Your task to perform on an android device: Add "acer nitro" to the cart on walmart.com Image 0: 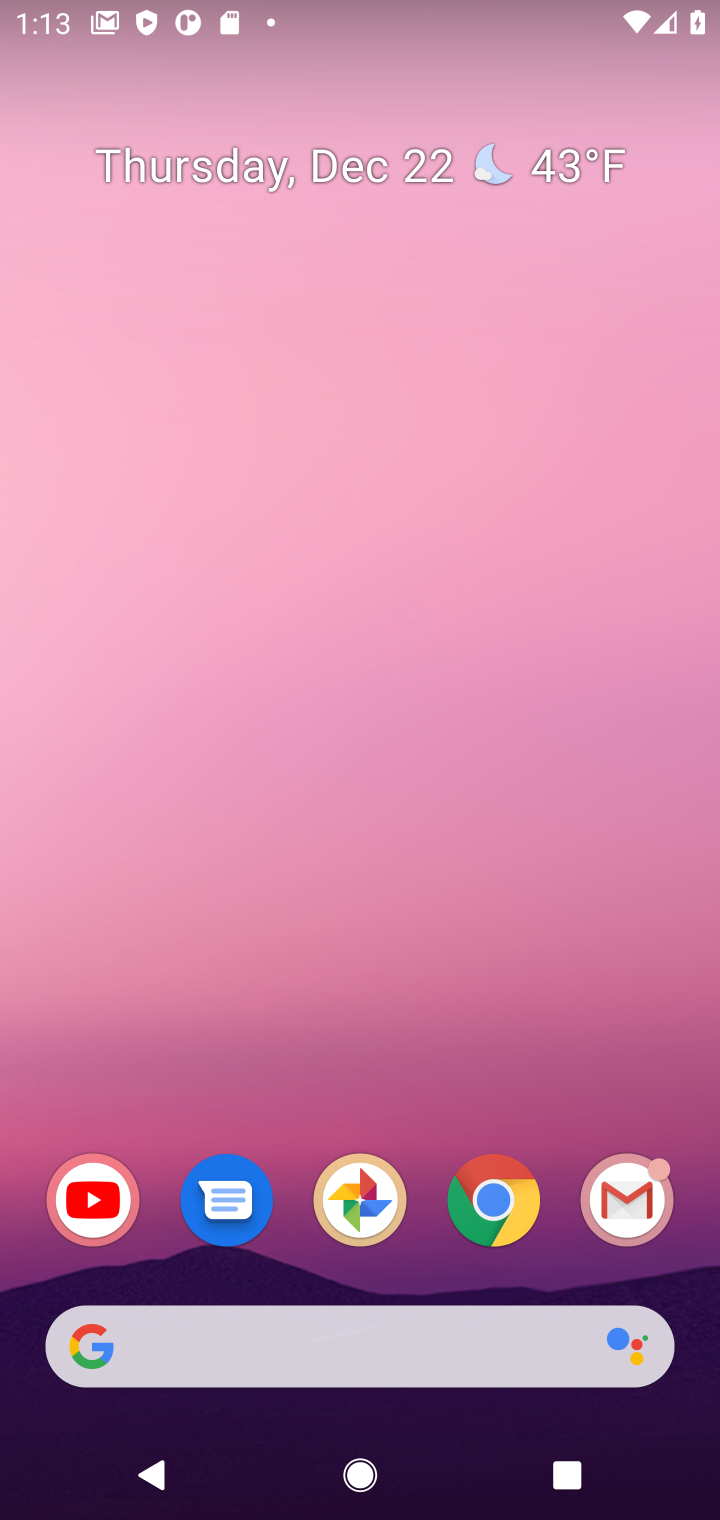
Step 0: click (495, 1208)
Your task to perform on an android device: Add "acer nitro" to the cart on walmart.com Image 1: 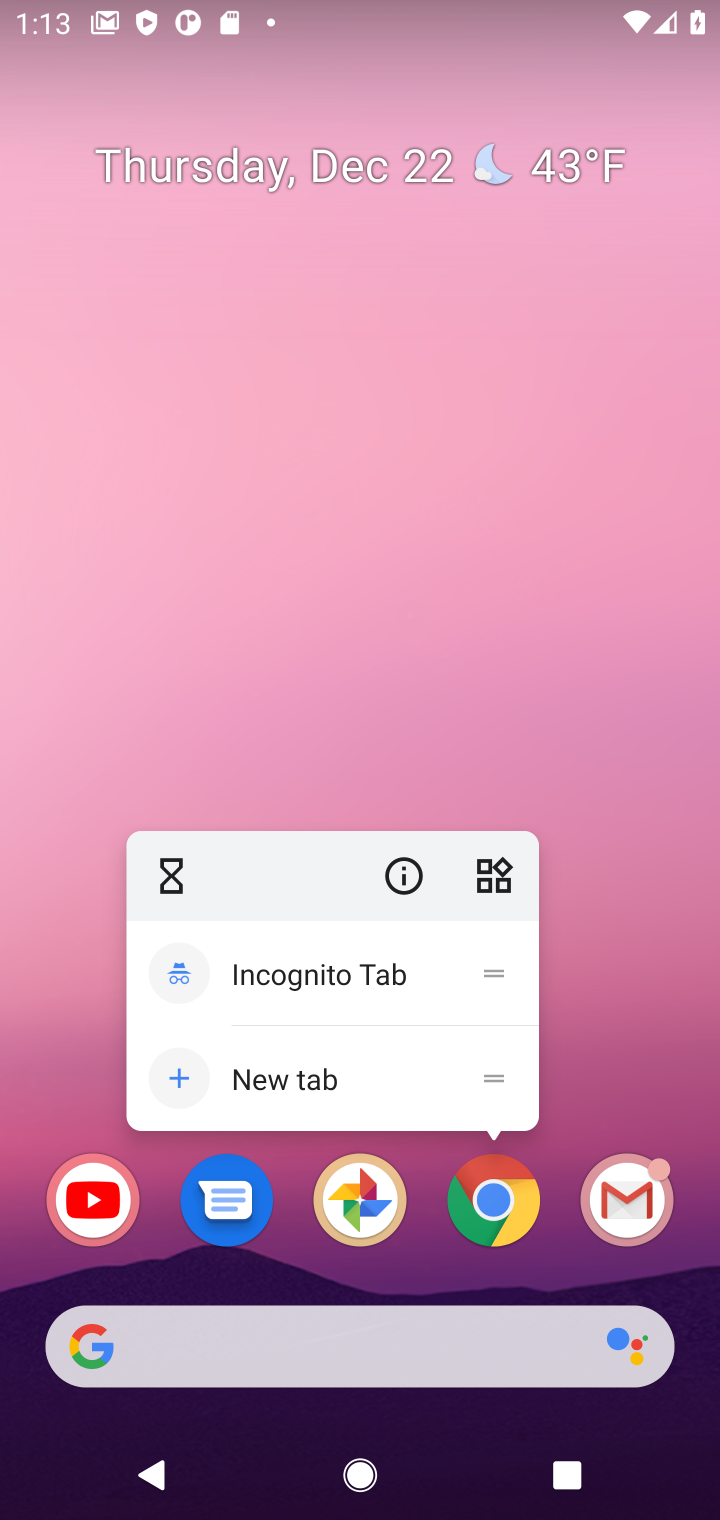
Step 1: click (495, 1208)
Your task to perform on an android device: Add "acer nitro" to the cart on walmart.com Image 2: 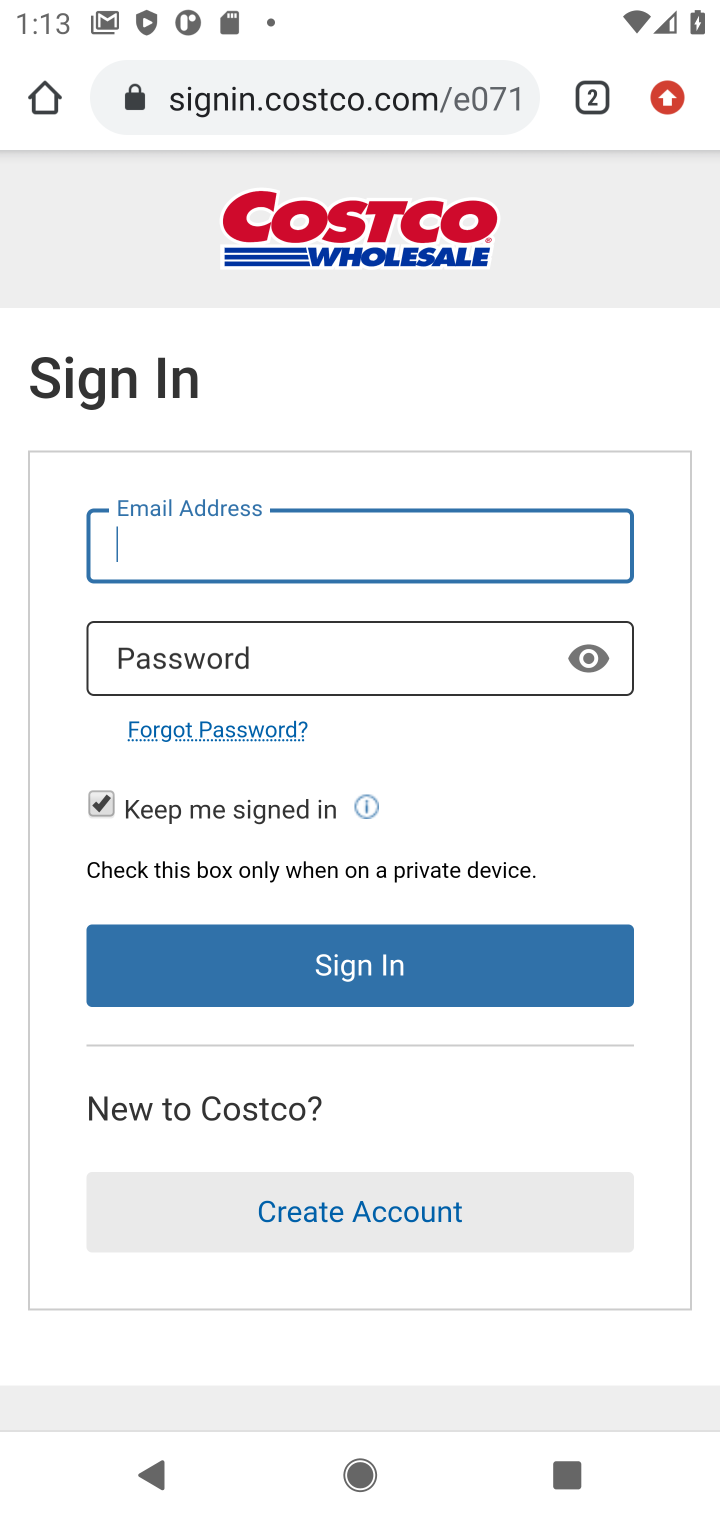
Step 2: click (289, 103)
Your task to perform on an android device: Add "acer nitro" to the cart on walmart.com Image 3: 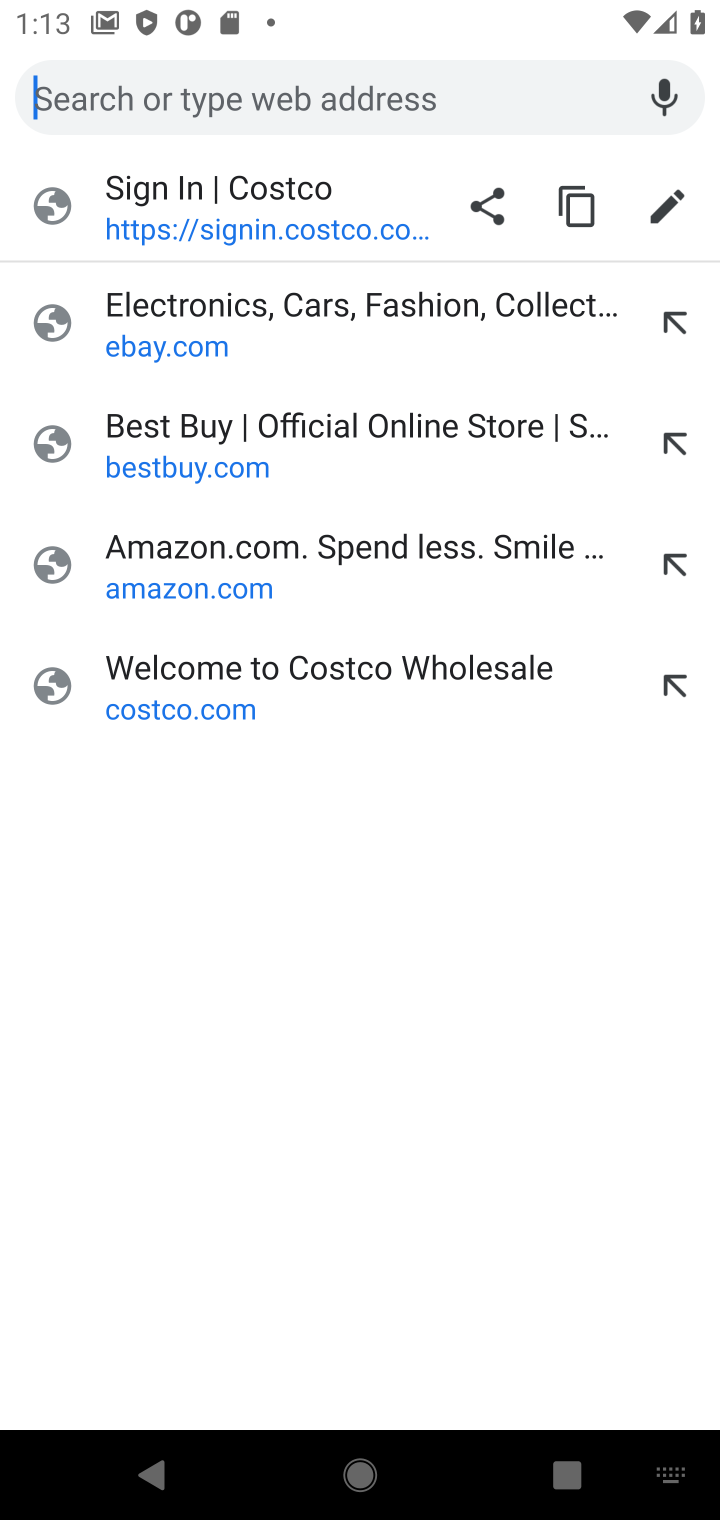
Step 3: type "walmart.com"
Your task to perform on an android device: Add "acer nitro" to the cart on walmart.com Image 4: 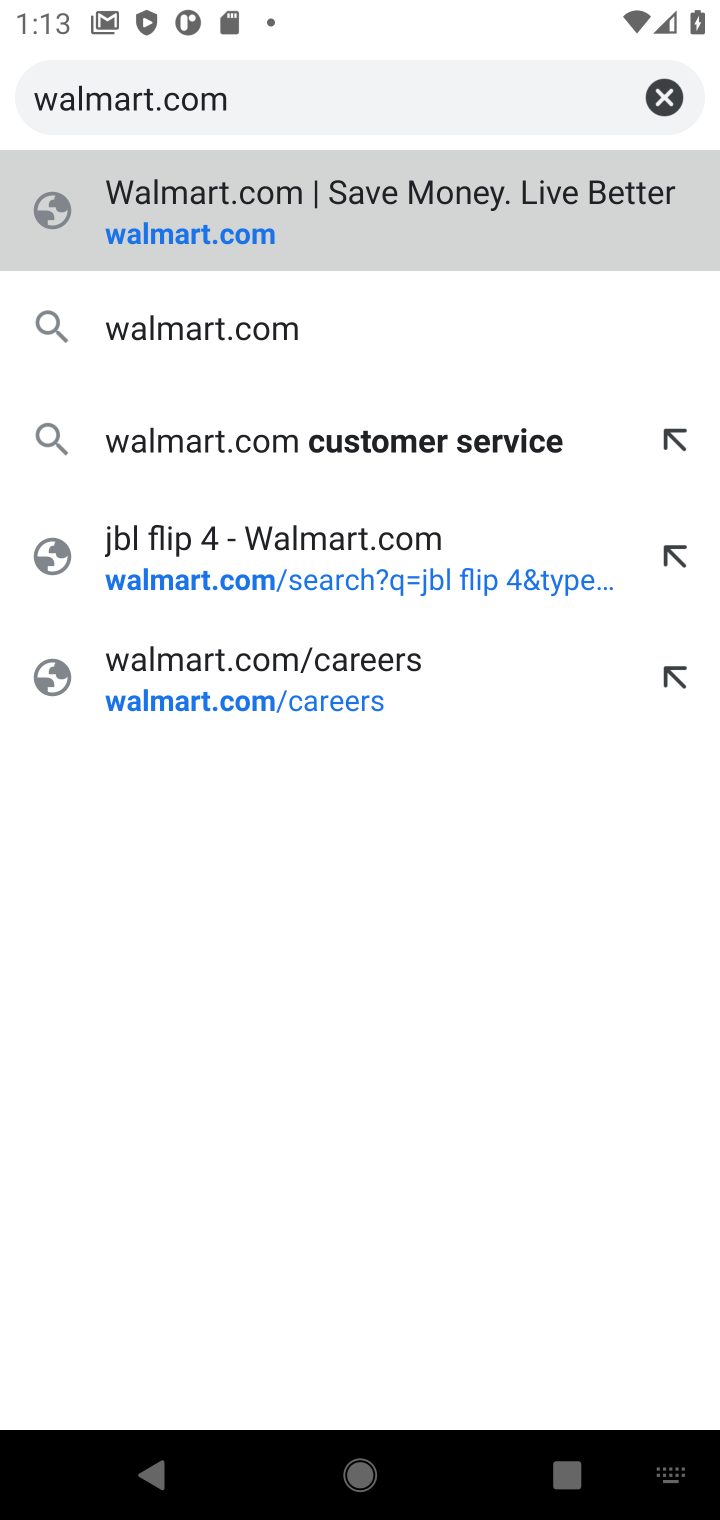
Step 4: click (204, 242)
Your task to perform on an android device: Add "acer nitro" to the cart on walmart.com Image 5: 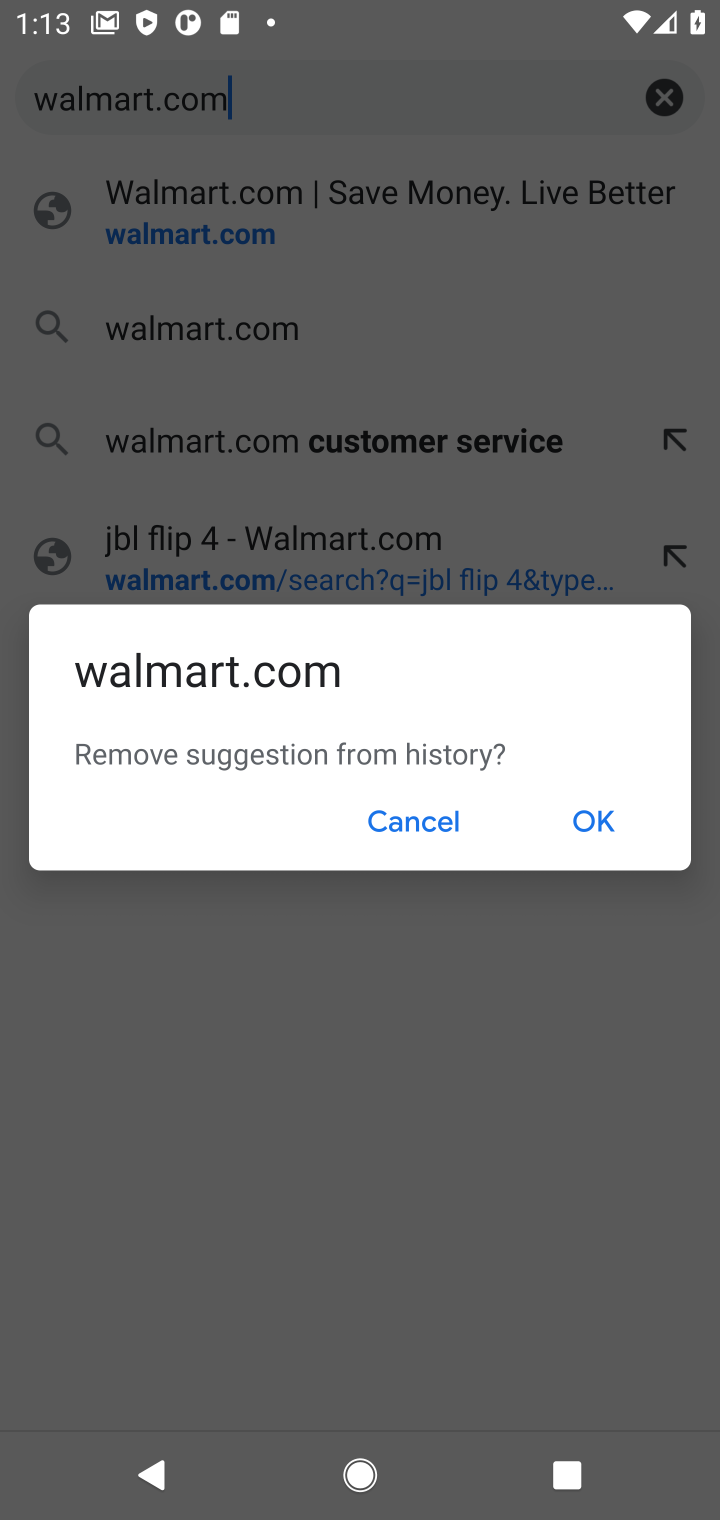
Step 5: click (406, 806)
Your task to perform on an android device: Add "acer nitro" to the cart on walmart.com Image 6: 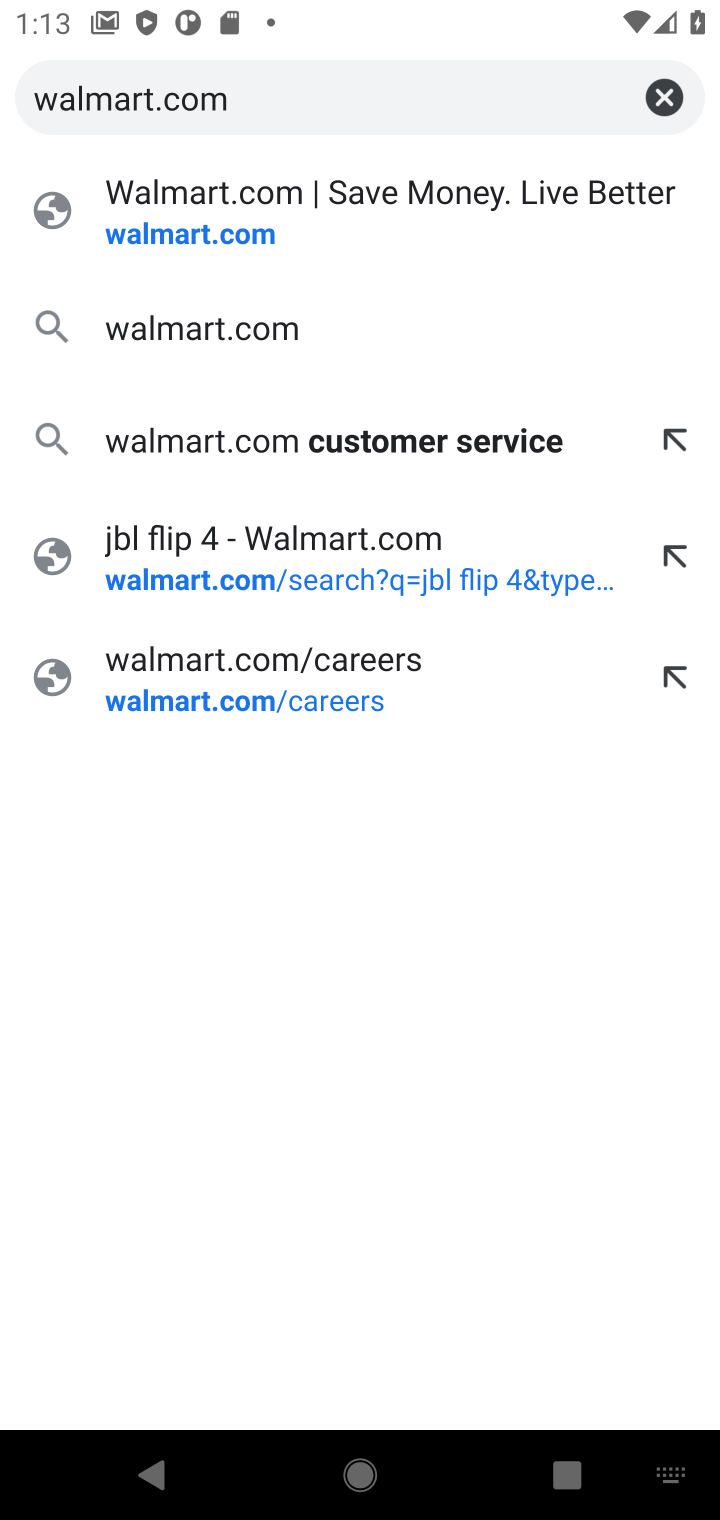
Step 6: click (176, 245)
Your task to perform on an android device: Add "acer nitro" to the cart on walmart.com Image 7: 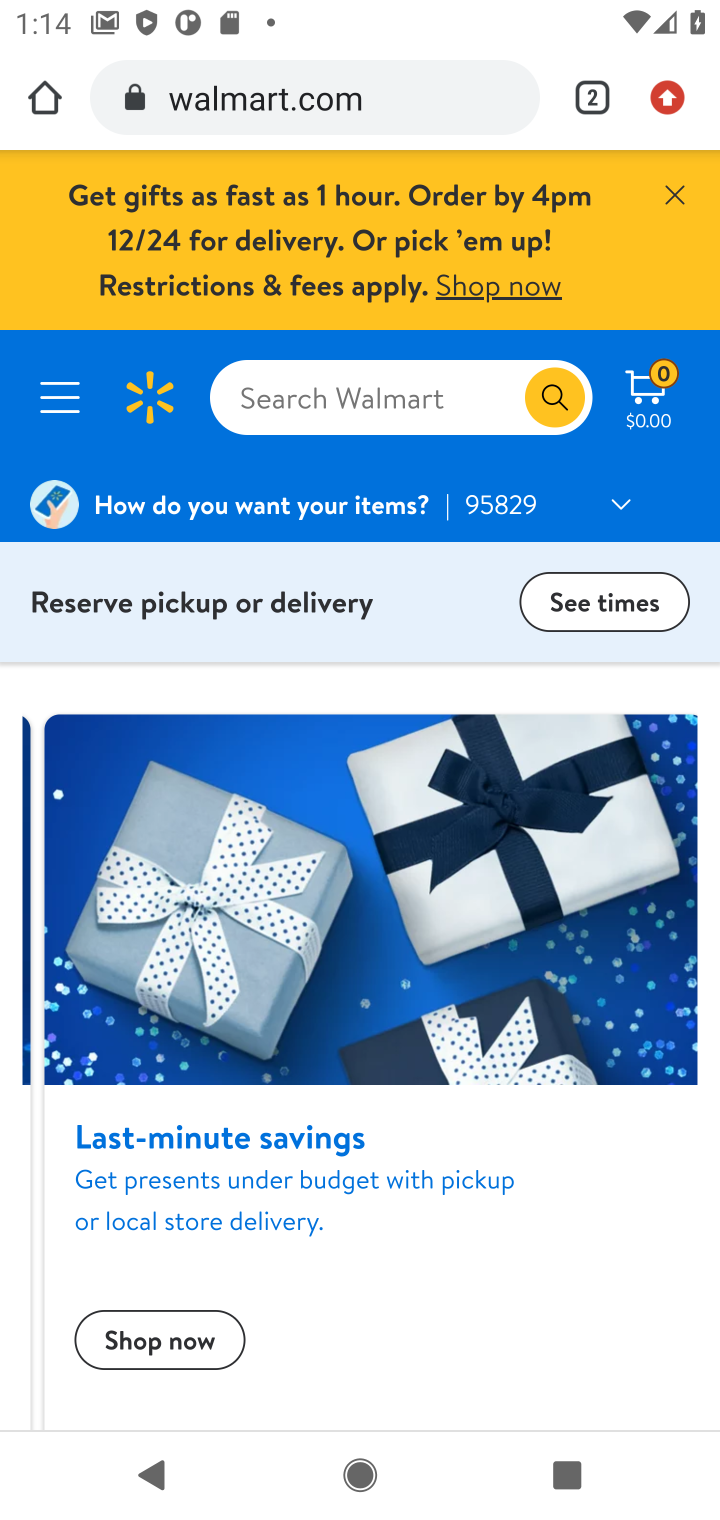
Step 7: click (318, 397)
Your task to perform on an android device: Add "acer nitro" to the cart on walmart.com Image 8: 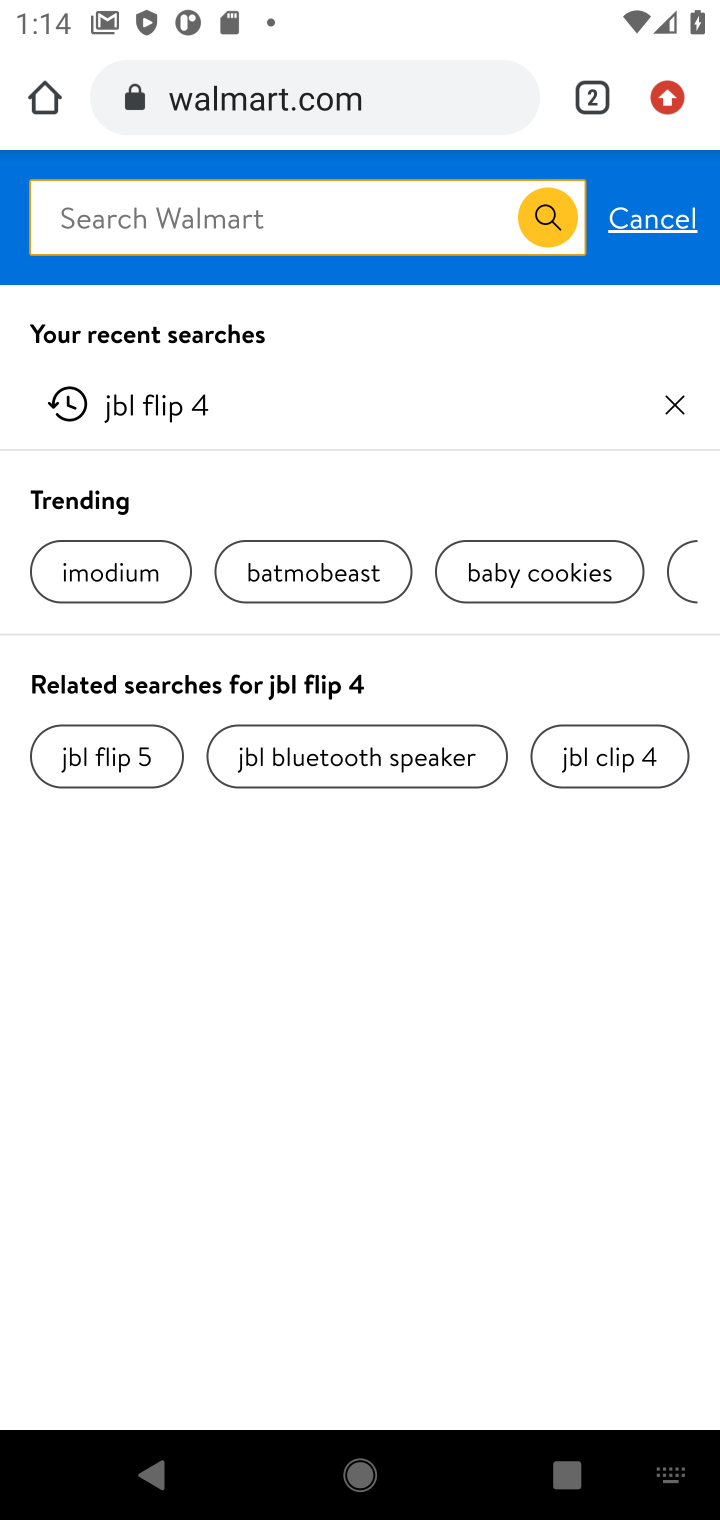
Step 8: type "acer nitro"
Your task to perform on an android device: Add "acer nitro" to the cart on walmart.com Image 9: 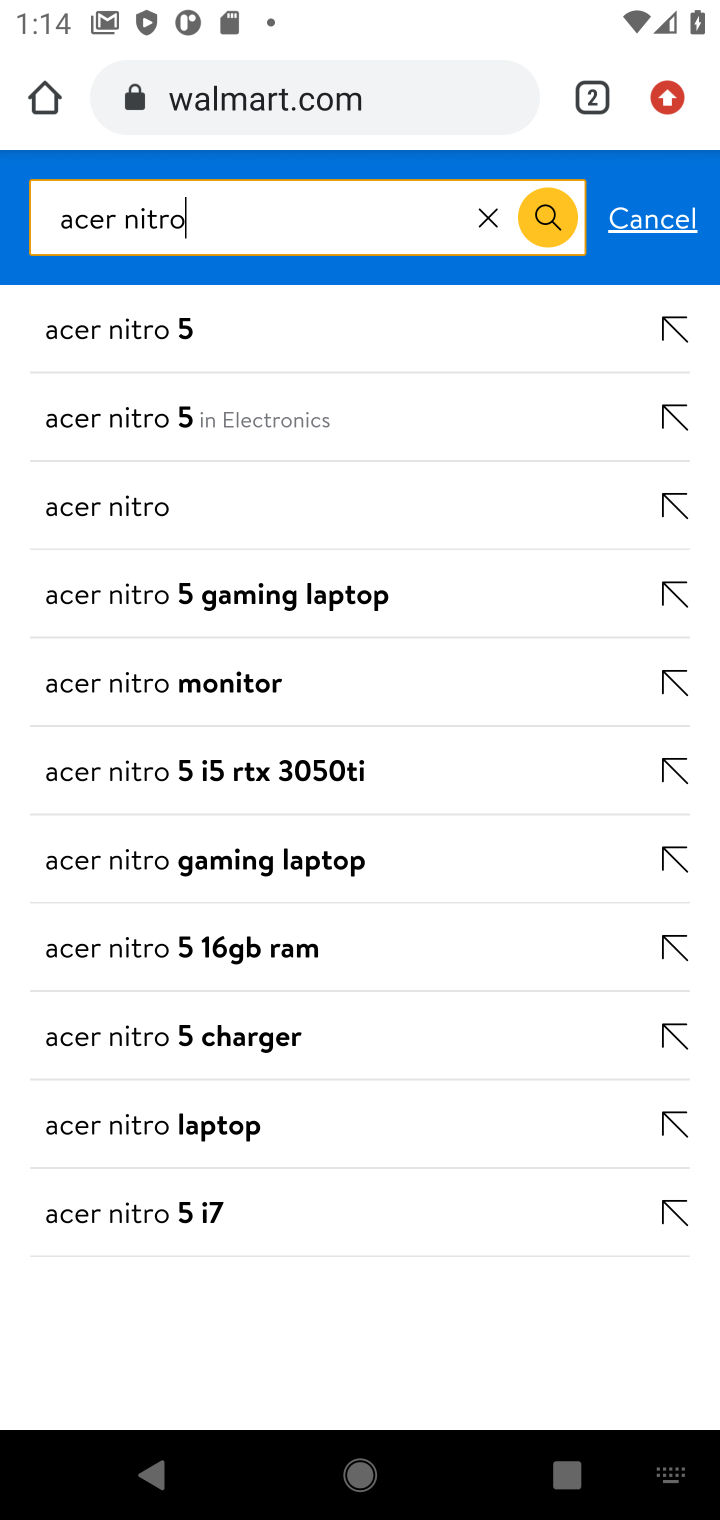
Step 9: click (80, 506)
Your task to perform on an android device: Add "acer nitro" to the cart on walmart.com Image 10: 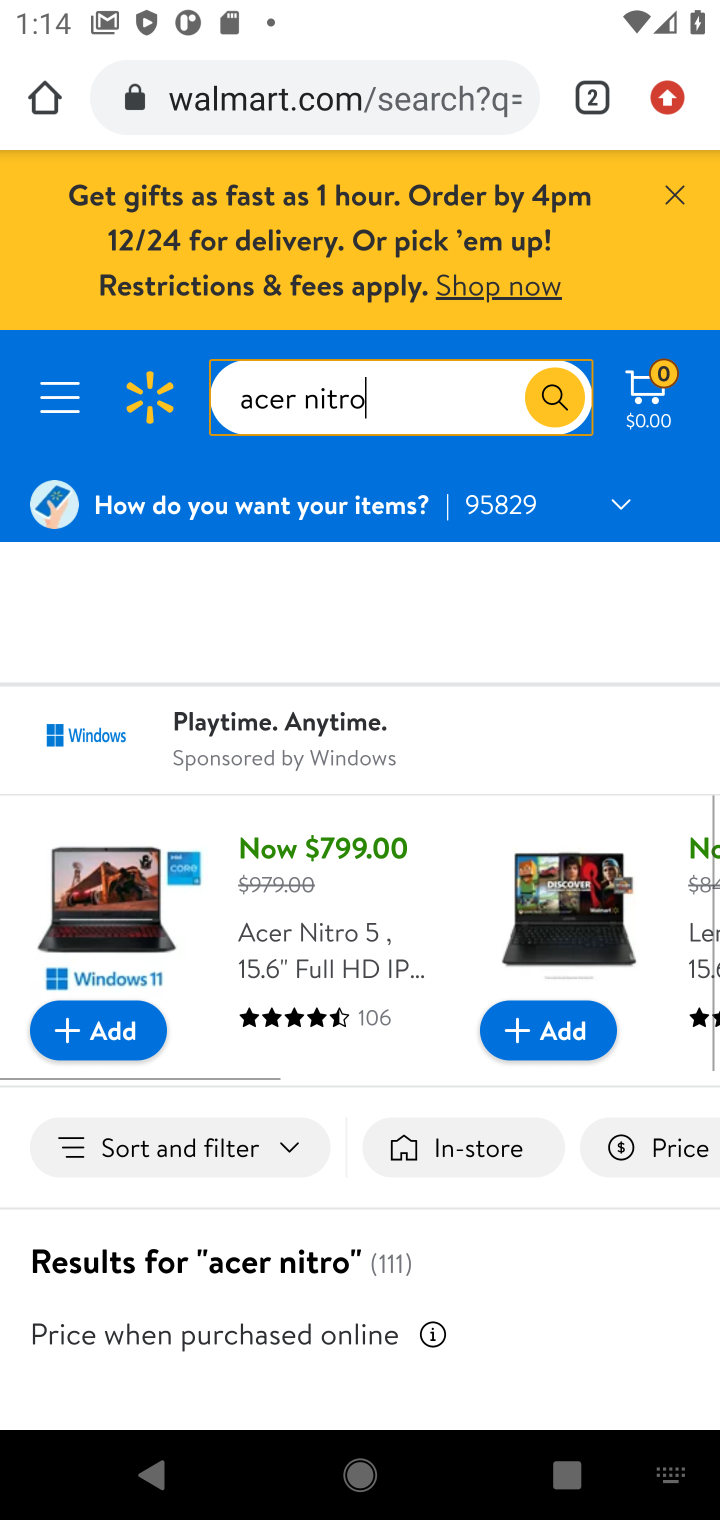
Step 10: drag from (300, 996) to (257, 487)
Your task to perform on an android device: Add "acer nitro" to the cart on walmart.com Image 11: 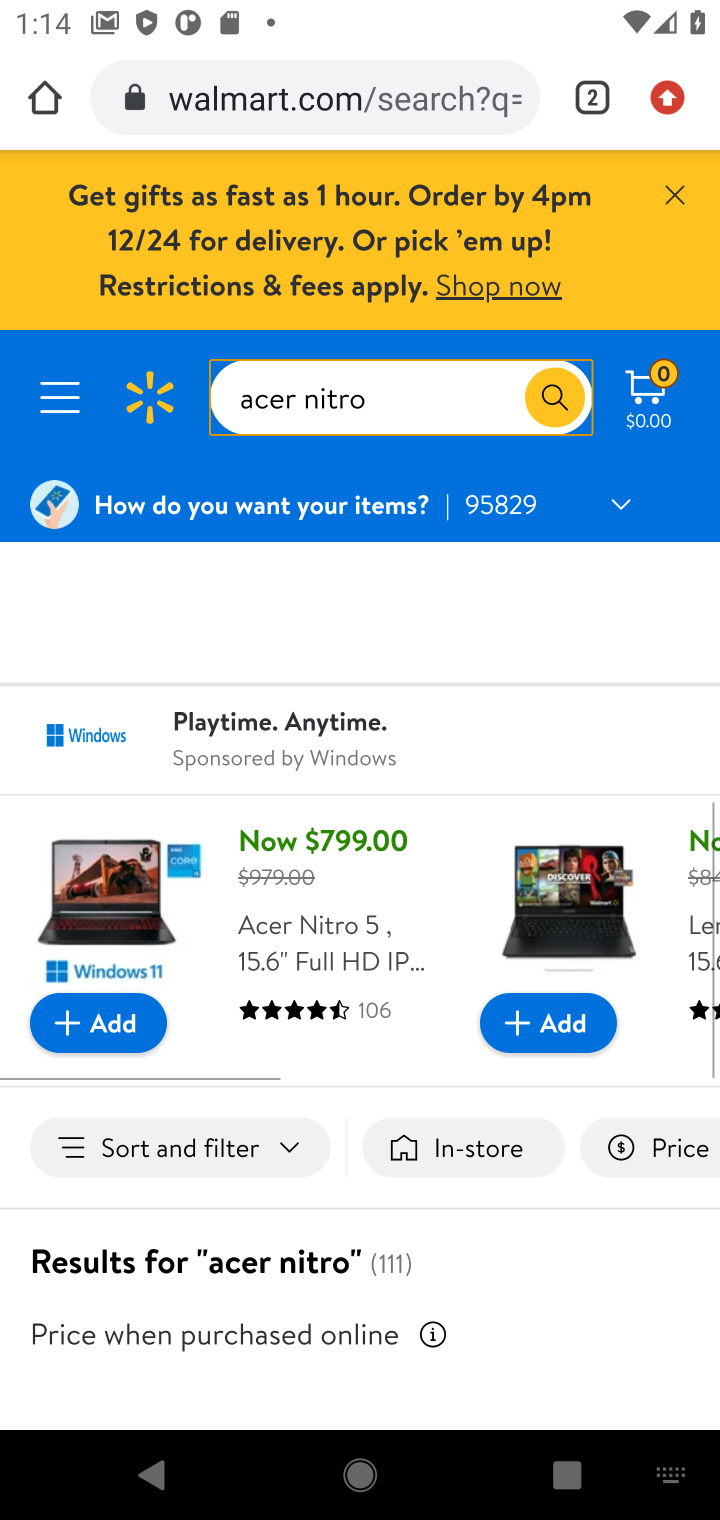
Step 11: drag from (453, 1249) to (408, 614)
Your task to perform on an android device: Add "acer nitro" to the cart on walmart.com Image 12: 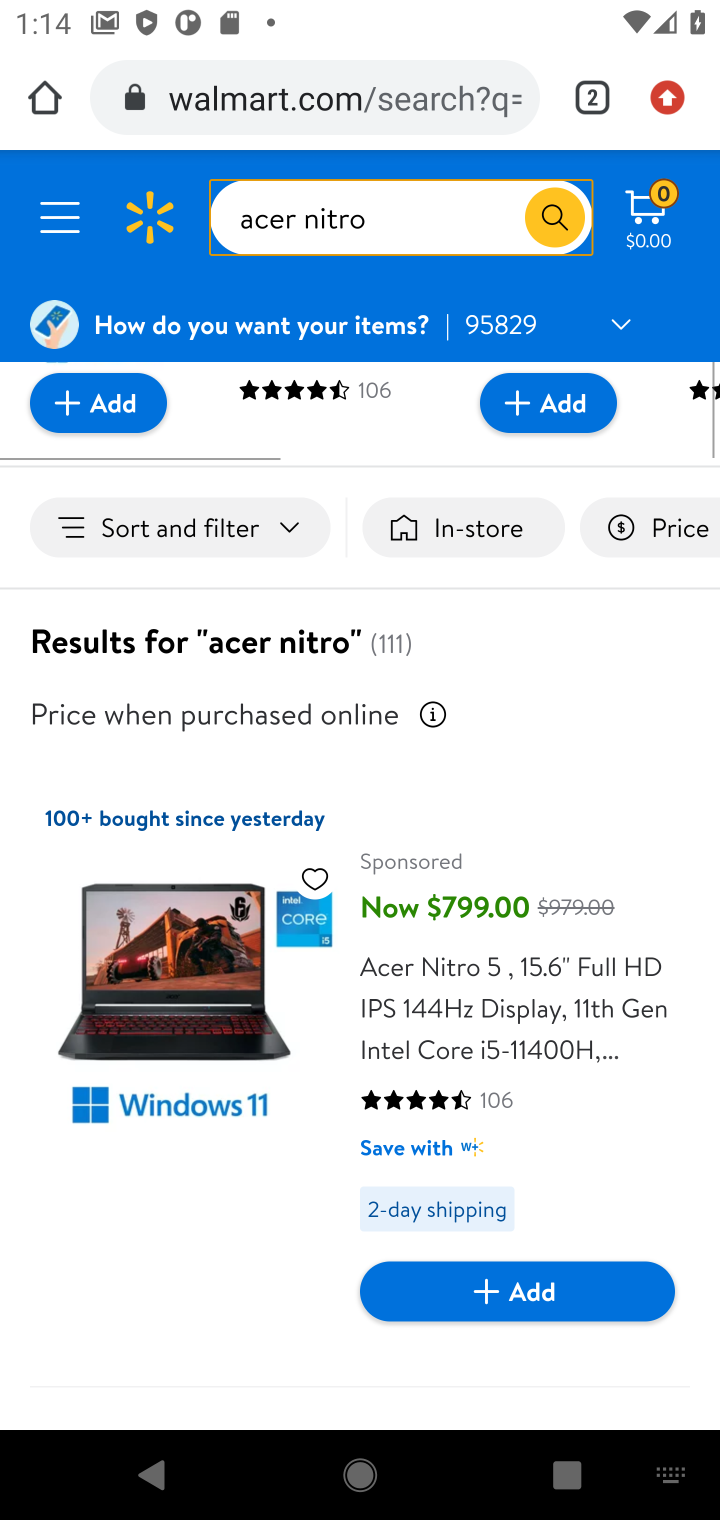
Step 12: click (488, 1302)
Your task to perform on an android device: Add "acer nitro" to the cart on walmart.com Image 13: 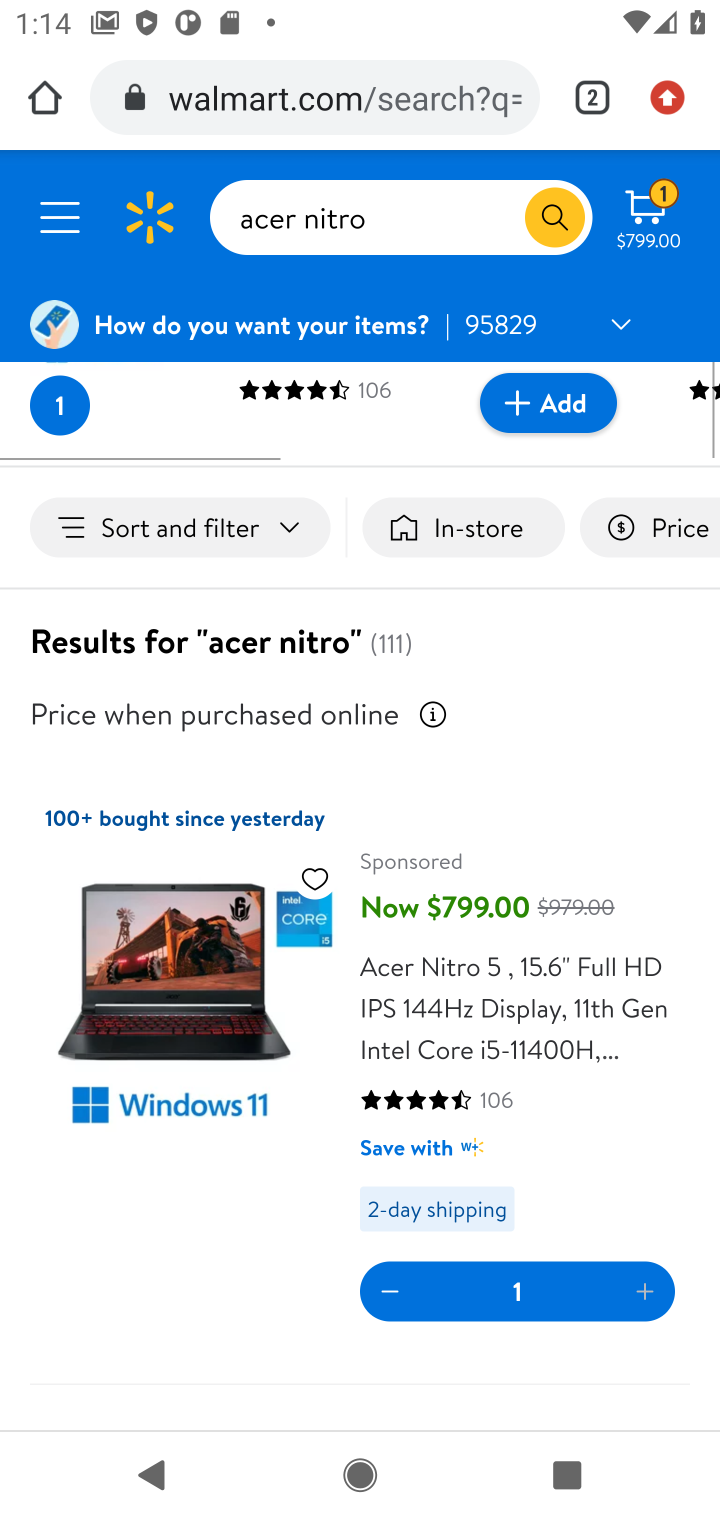
Step 13: task complete